Your task to perform on an android device: add a contact in the contacts app Image 0: 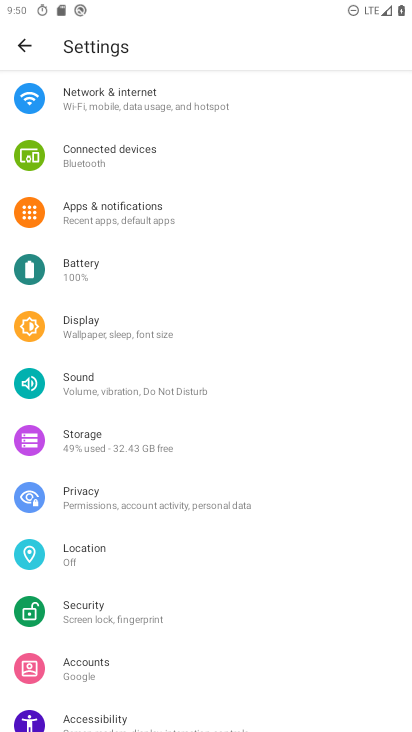
Step 0: press home button
Your task to perform on an android device: add a contact in the contacts app Image 1: 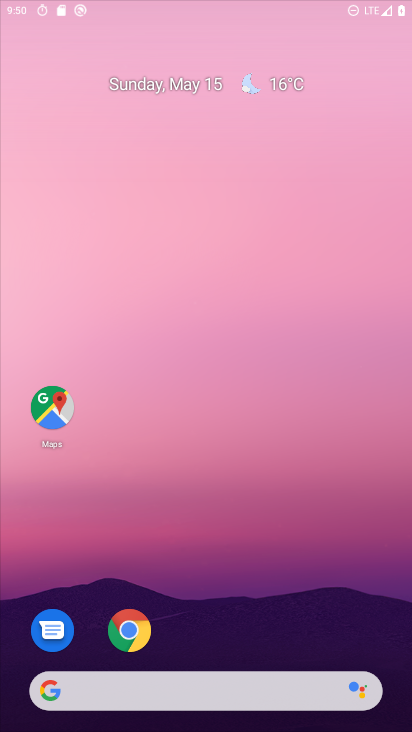
Step 1: drag from (182, 637) to (231, 241)
Your task to perform on an android device: add a contact in the contacts app Image 2: 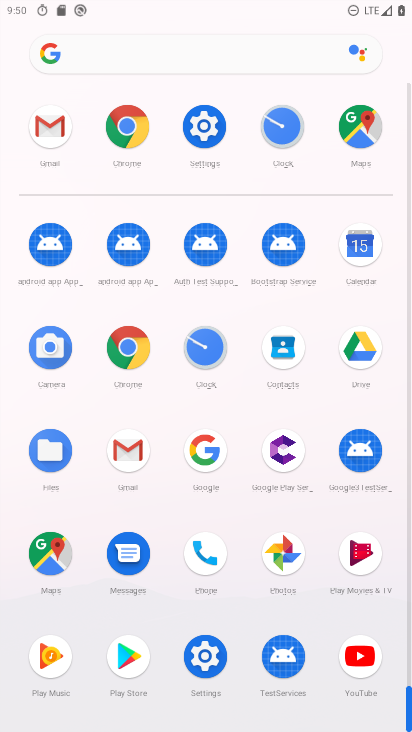
Step 2: click (297, 346)
Your task to perform on an android device: add a contact in the contacts app Image 3: 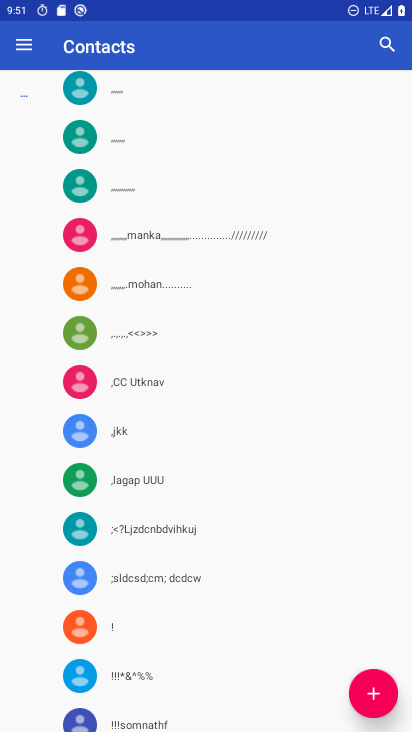
Step 3: click (393, 685)
Your task to perform on an android device: add a contact in the contacts app Image 4: 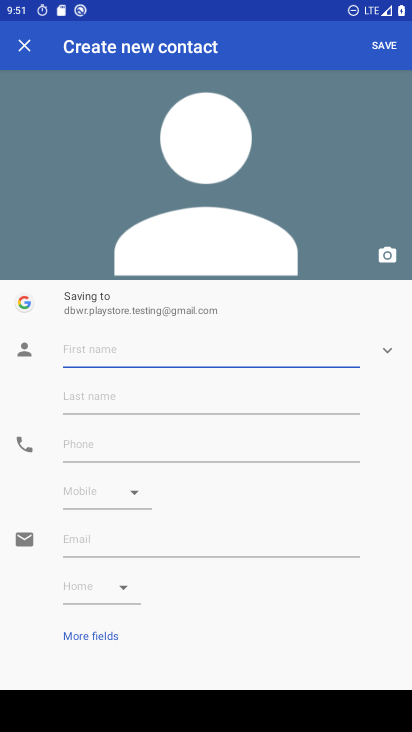
Step 4: click (111, 360)
Your task to perform on an android device: add a contact in the contacts app Image 5: 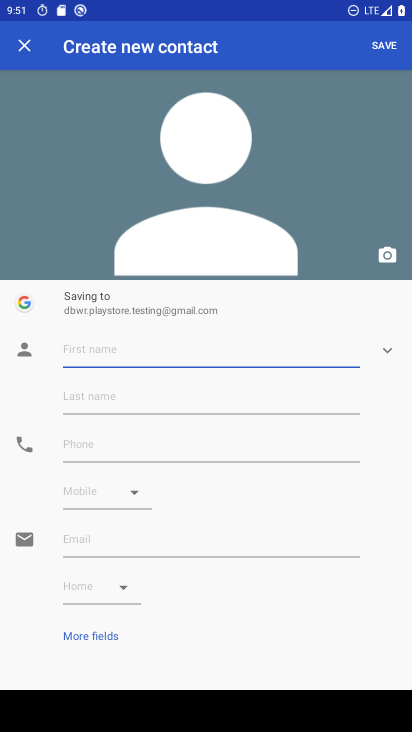
Step 5: type "lkasis"
Your task to perform on an android device: add a contact in the contacts app Image 6: 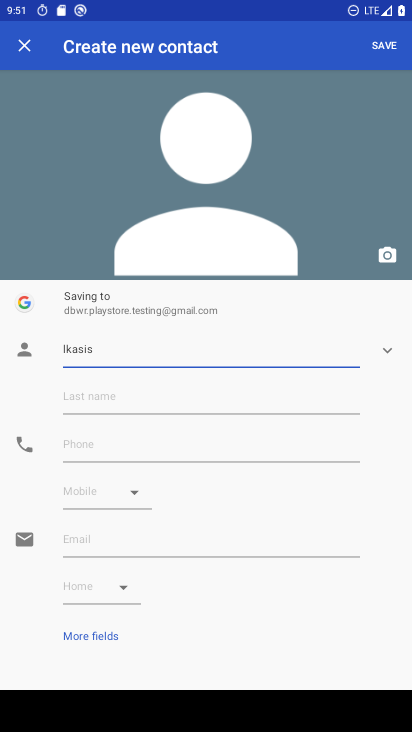
Step 6: click (390, 59)
Your task to perform on an android device: add a contact in the contacts app Image 7: 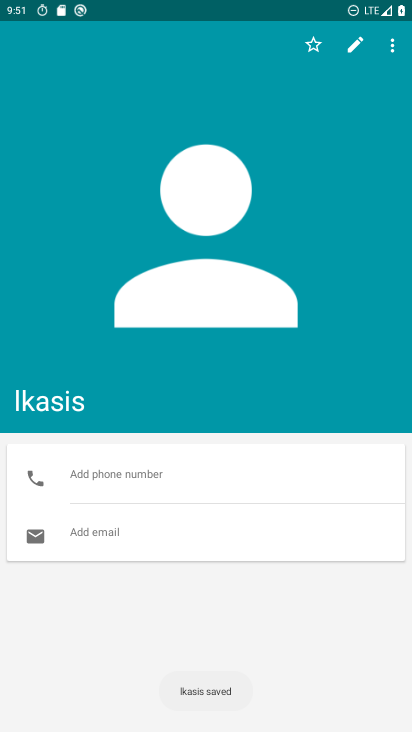
Step 7: task complete